Your task to perform on an android device: Go to location settings Image 0: 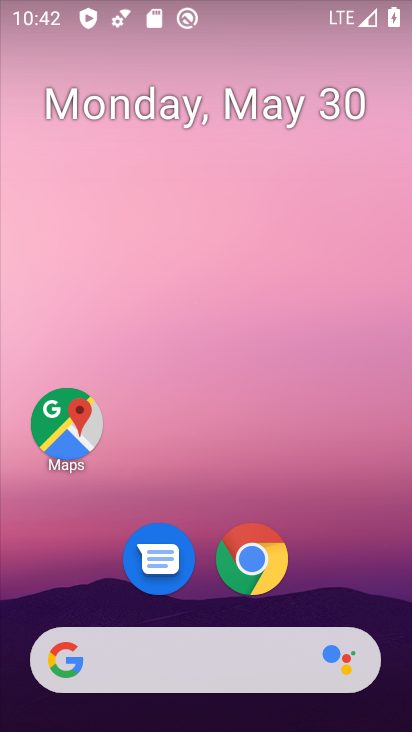
Step 0: drag from (354, 609) to (209, 0)
Your task to perform on an android device: Go to location settings Image 1: 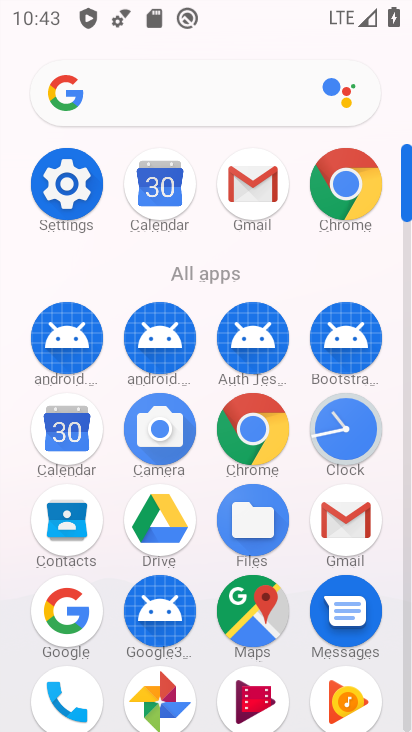
Step 1: click (80, 155)
Your task to perform on an android device: Go to location settings Image 2: 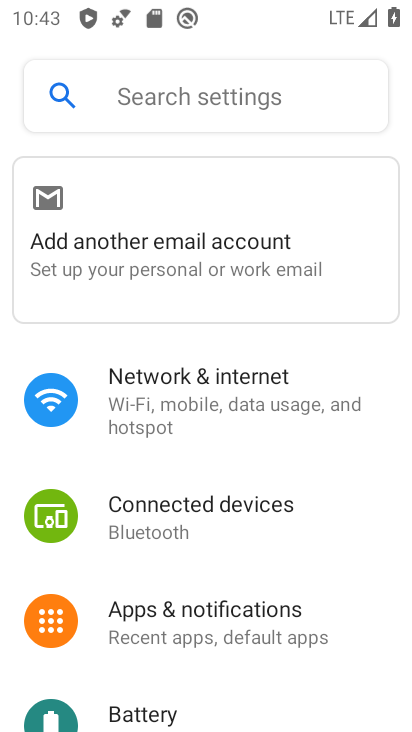
Step 2: drag from (209, 675) to (183, 329)
Your task to perform on an android device: Go to location settings Image 3: 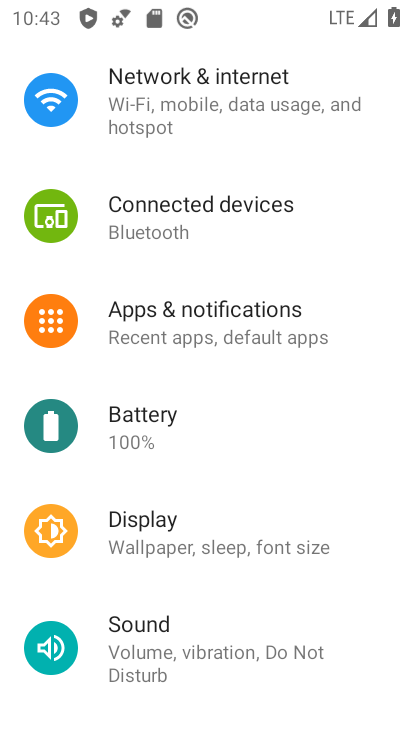
Step 3: drag from (233, 580) to (220, 204)
Your task to perform on an android device: Go to location settings Image 4: 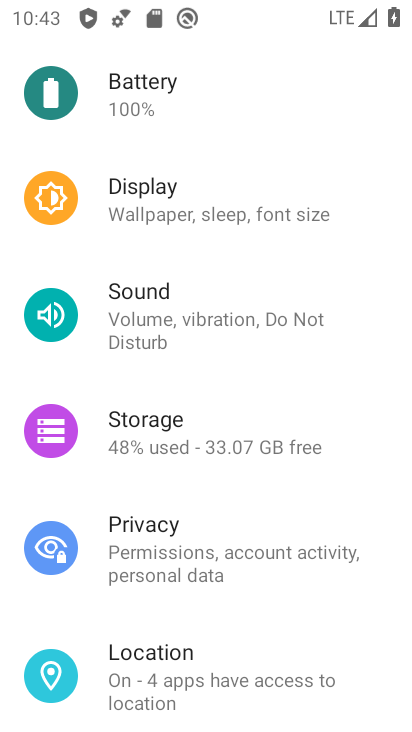
Step 4: click (202, 654)
Your task to perform on an android device: Go to location settings Image 5: 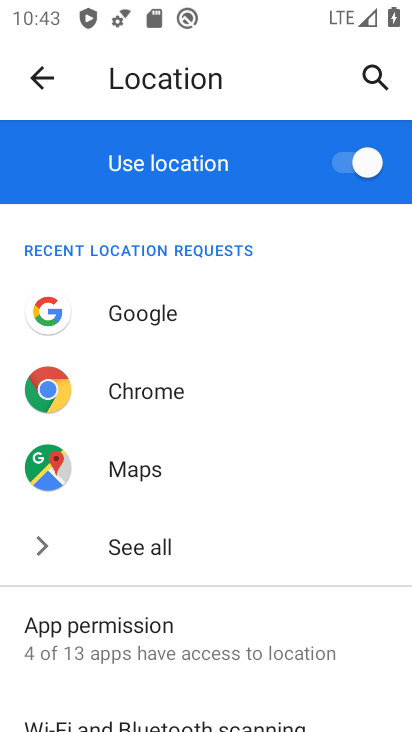
Step 5: task complete